Your task to perform on an android device: open app "Google Duo" (install if not already installed) Image 0: 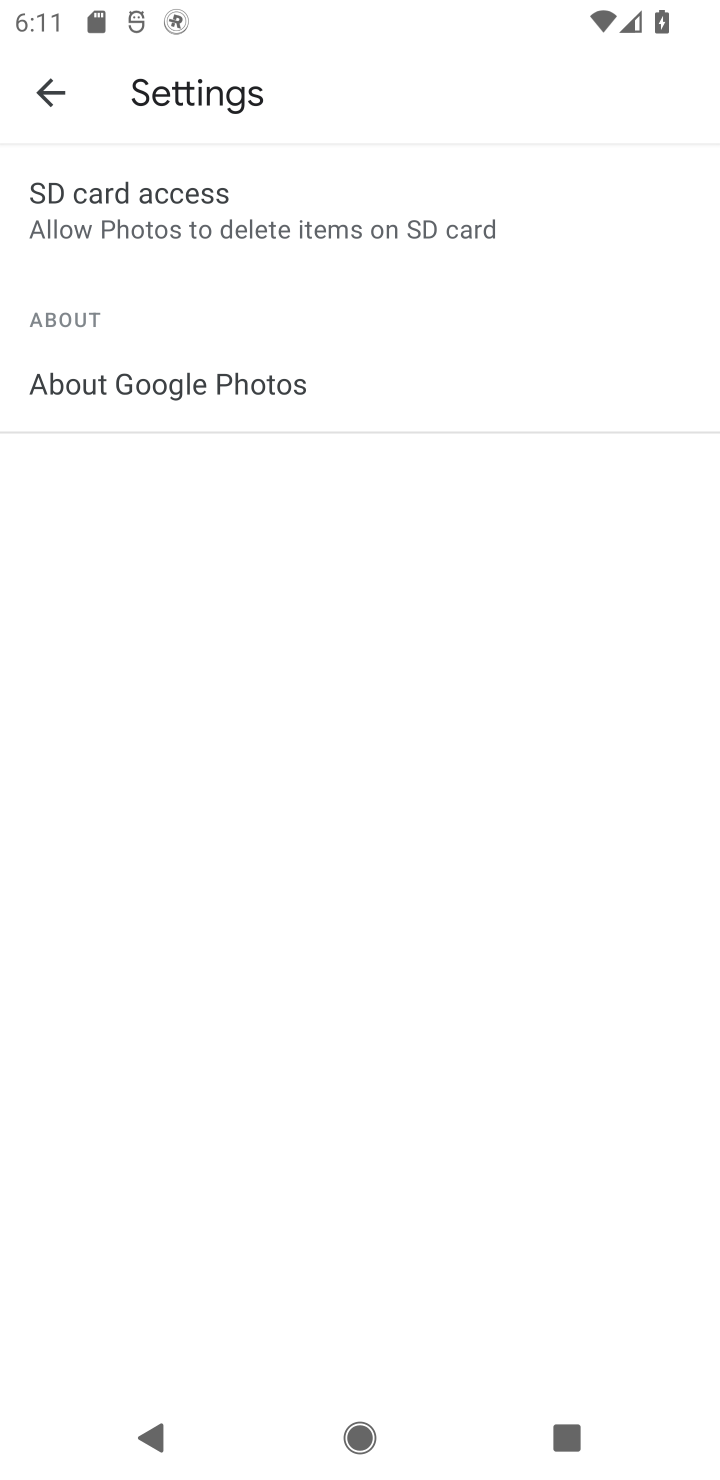
Step 0: press home button
Your task to perform on an android device: open app "Google Duo" (install if not already installed) Image 1: 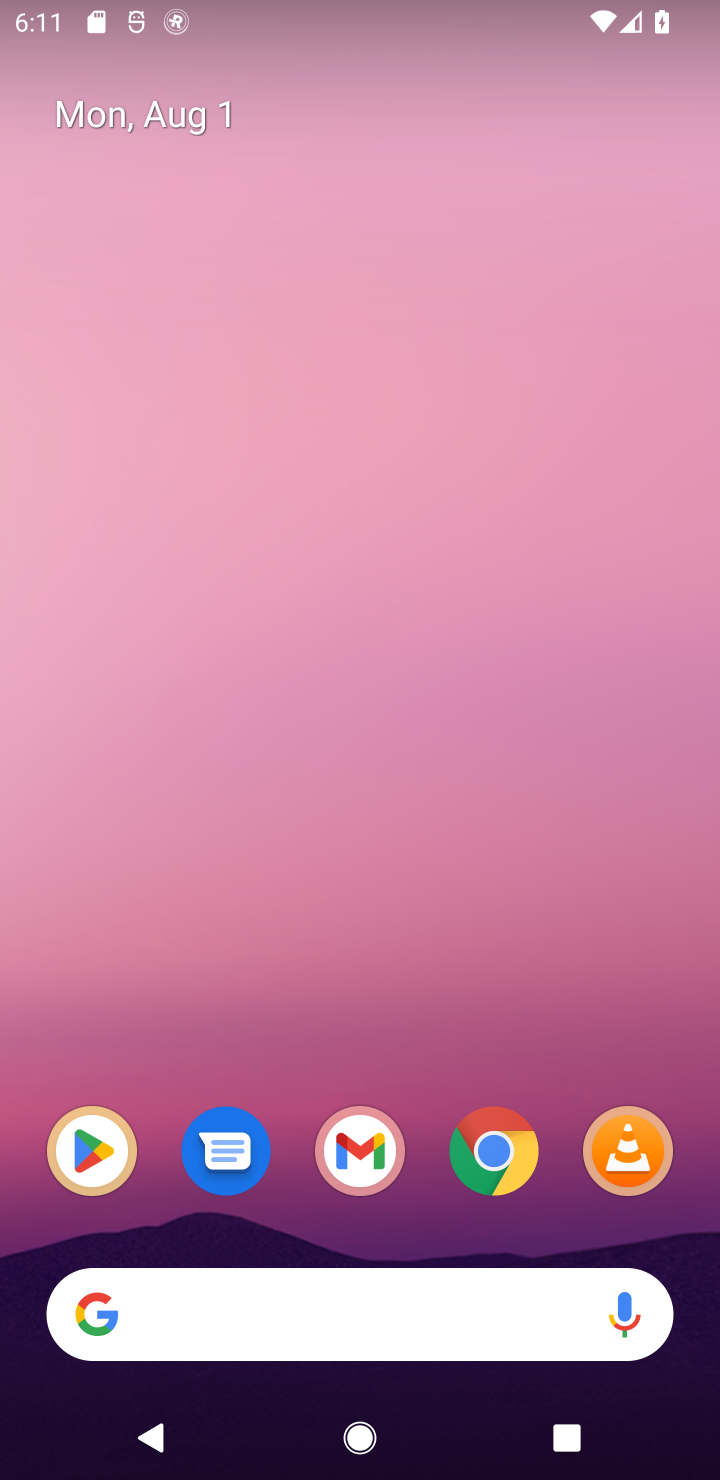
Step 1: click (98, 1150)
Your task to perform on an android device: open app "Google Duo" (install if not already installed) Image 2: 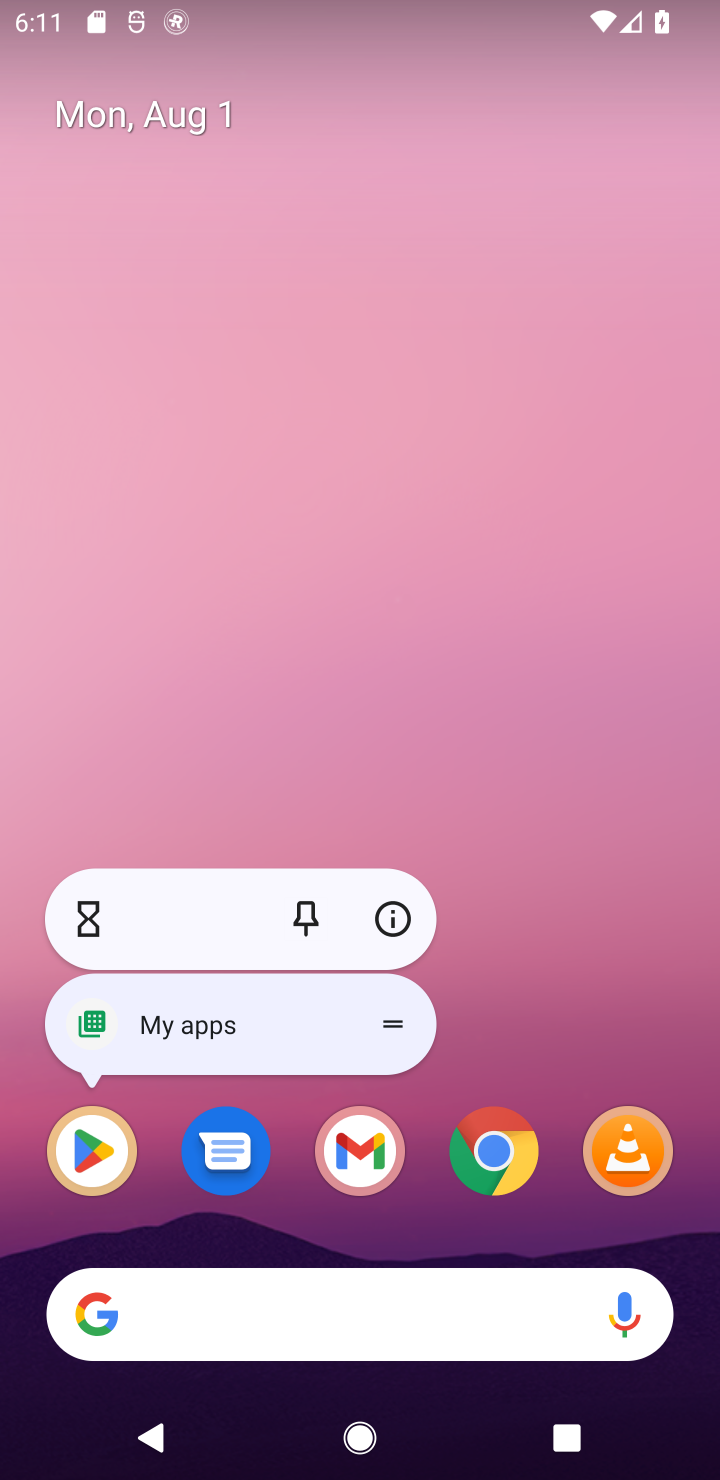
Step 2: click (93, 1173)
Your task to perform on an android device: open app "Google Duo" (install if not already installed) Image 3: 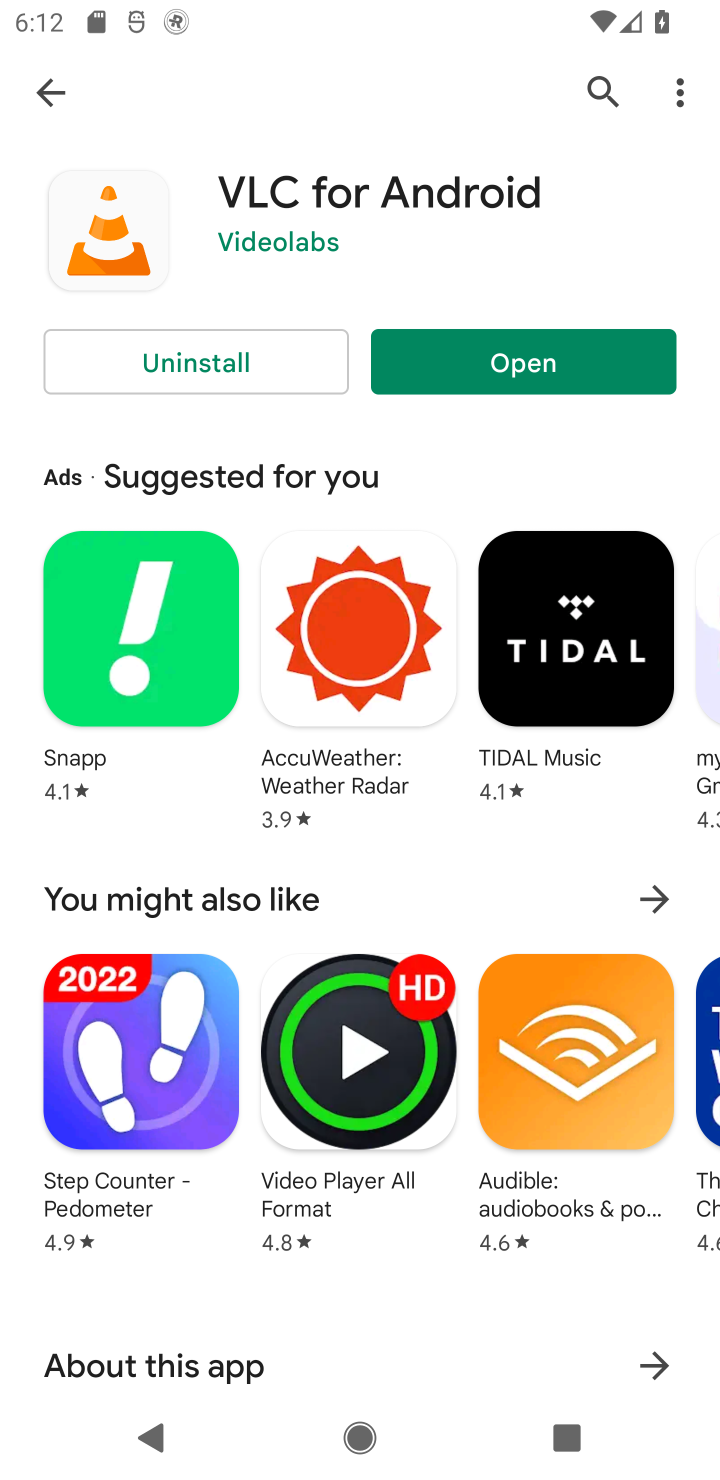
Step 3: click (595, 97)
Your task to perform on an android device: open app "Google Duo" (install if not already installed) Image 4: 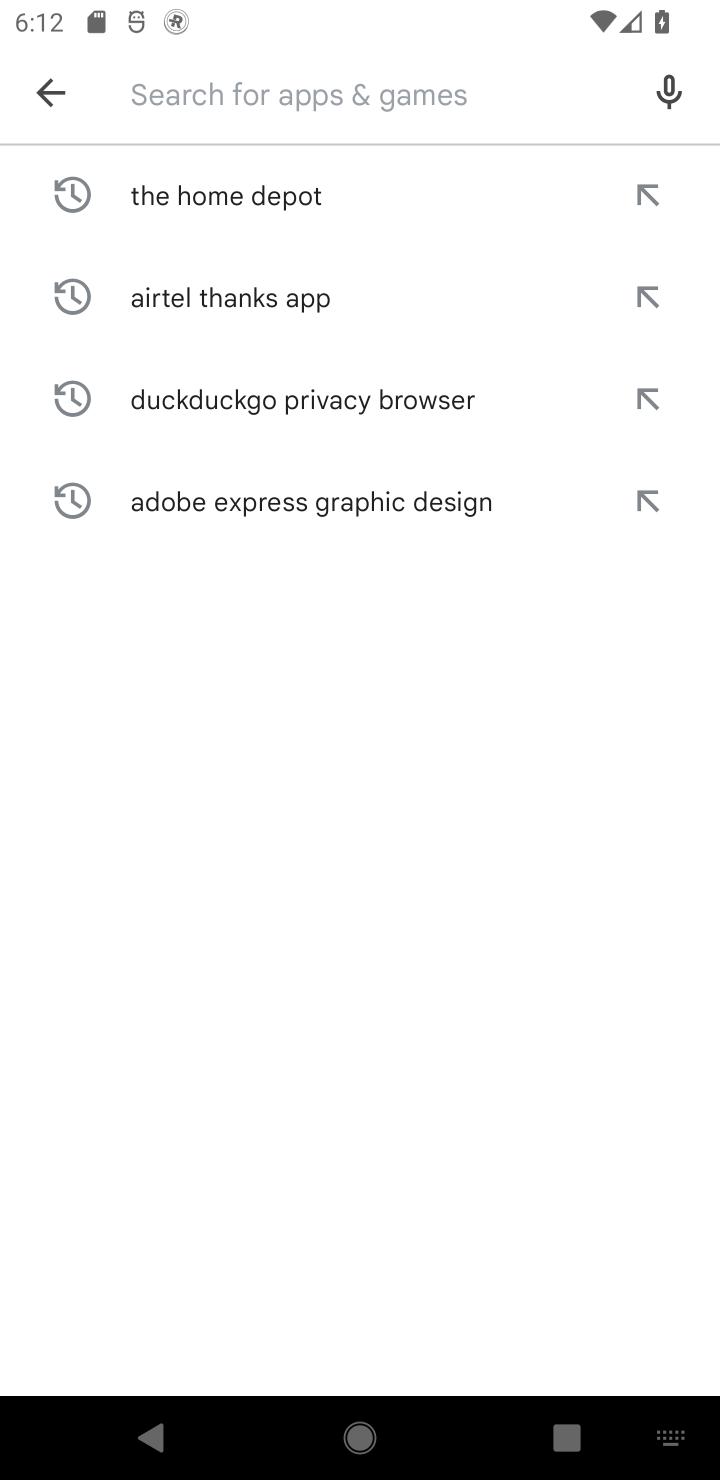
Step 4: type "Google Duo"
Your task to perform on an android device: open app "Google Duo" (install if not already installed) Image 5: 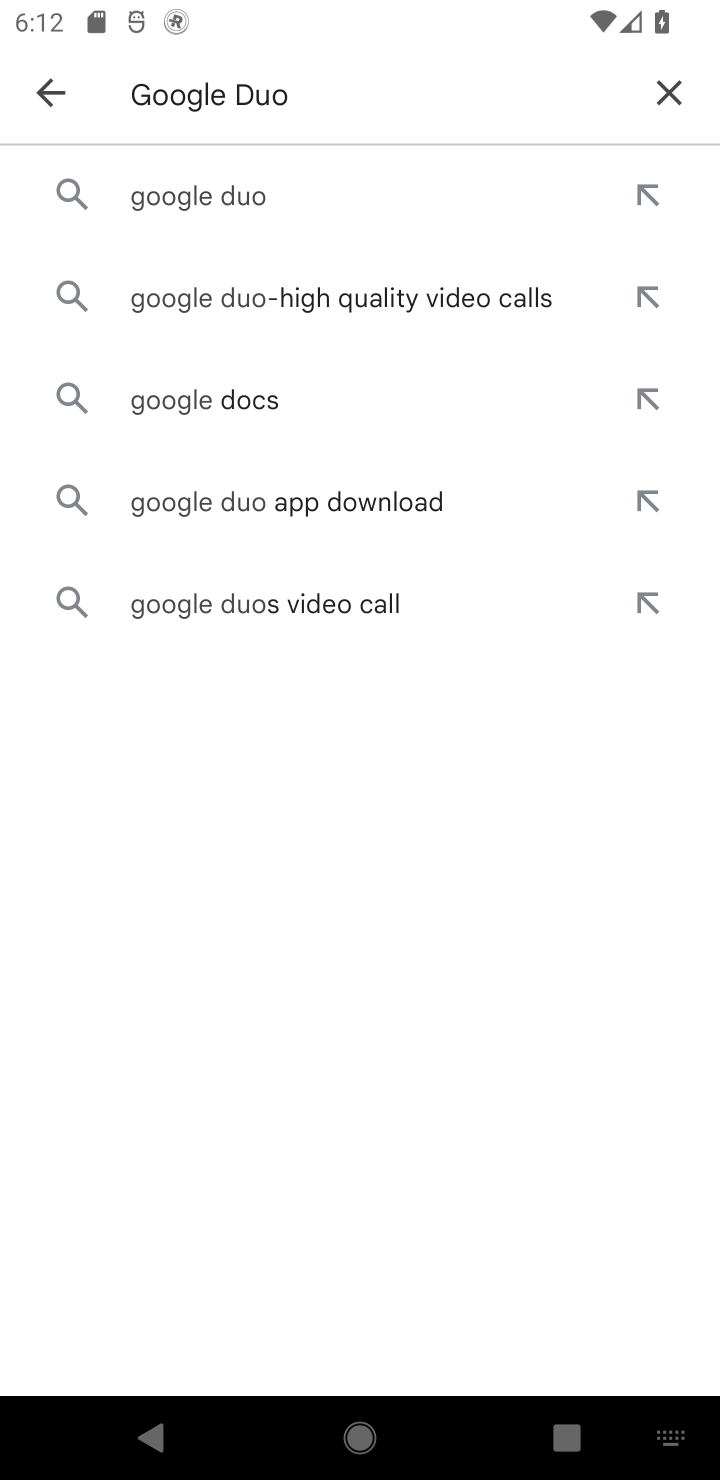
Step 5: click (160, 214)
Your task to perform on an android device: open app "Google Duo" (install if not already installed) Image 6: 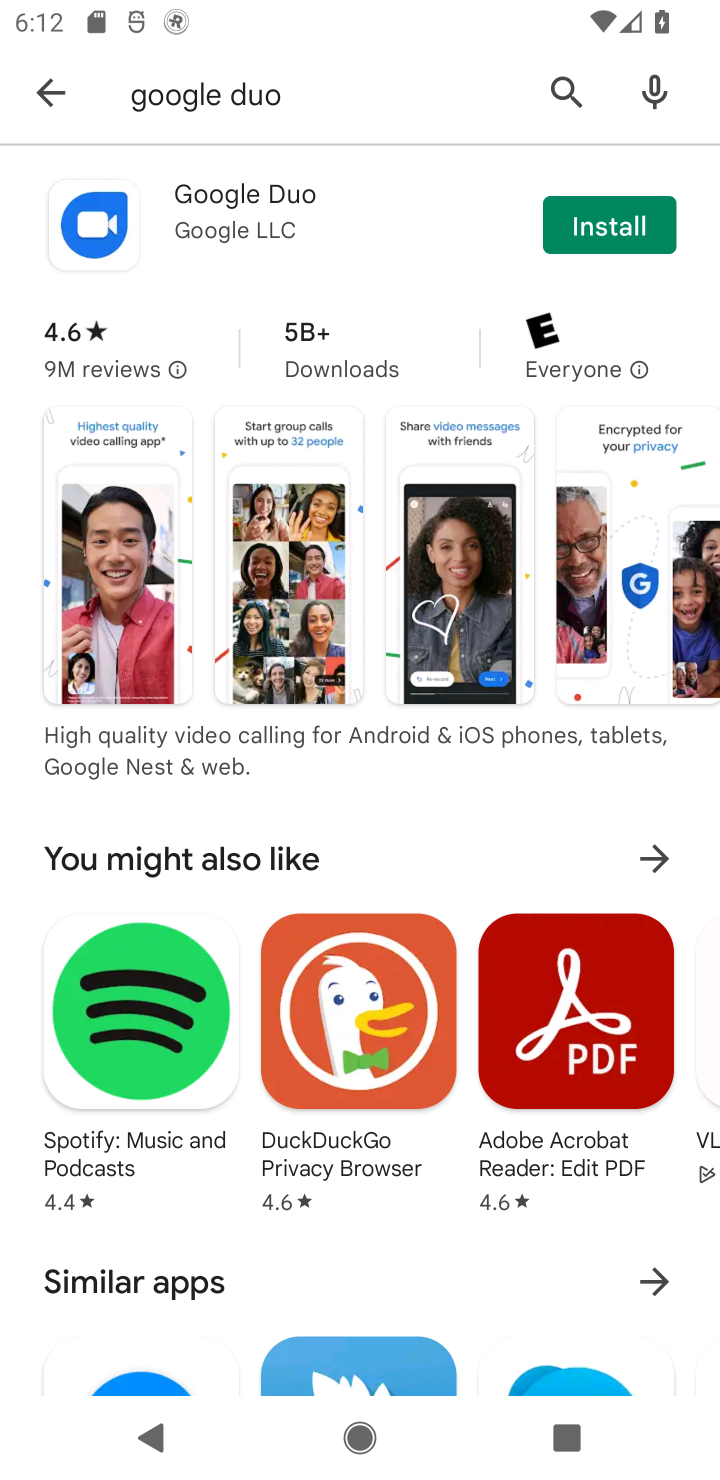
Step 6: click (610, 247)
Your task to perform on an android device: open app "Google Duo" (install if not already installed) Image 7: 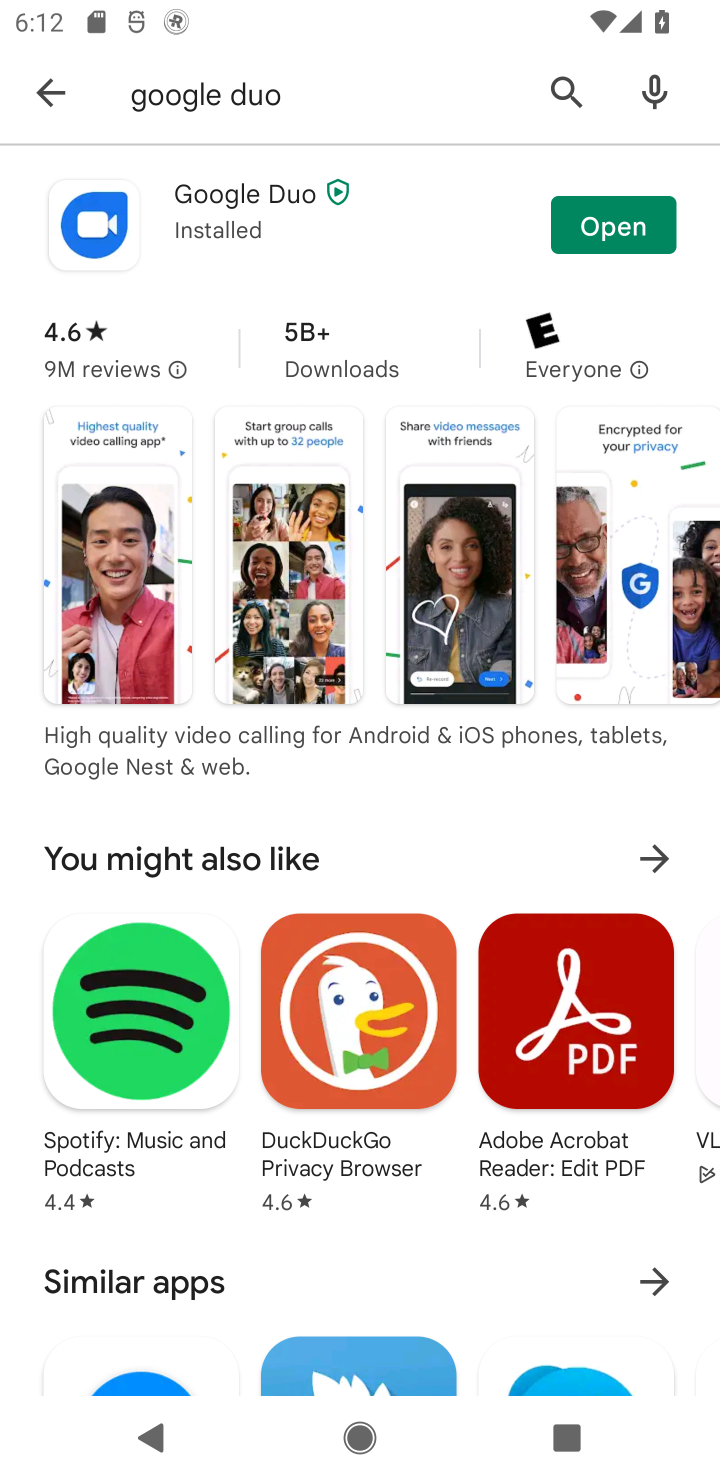
Step 7: click (588, 235)
Your task to perform on an android device: open app "Google Duo" (install if not already installed) Image 8: 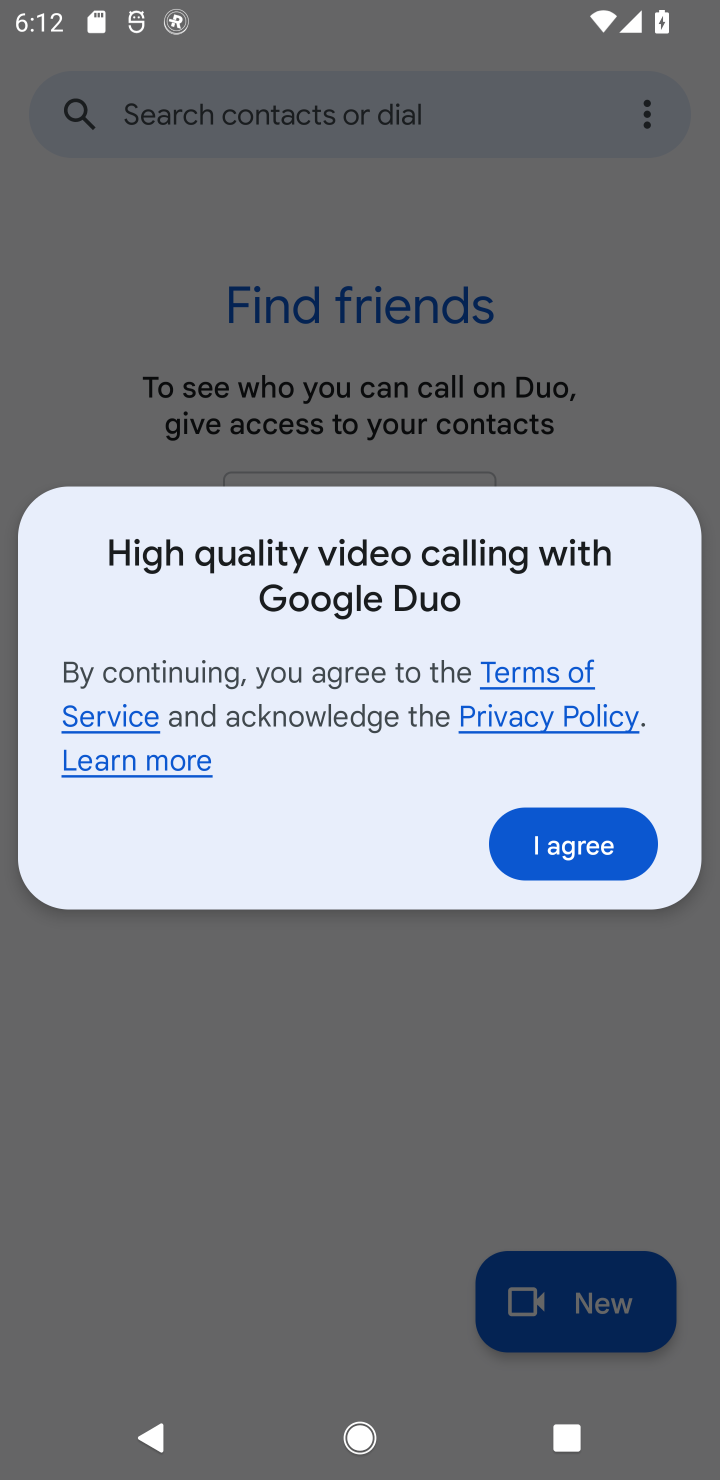
Step 8: task complete